Your task to perform on an android device: open a new tab in the chrome app Image 0: 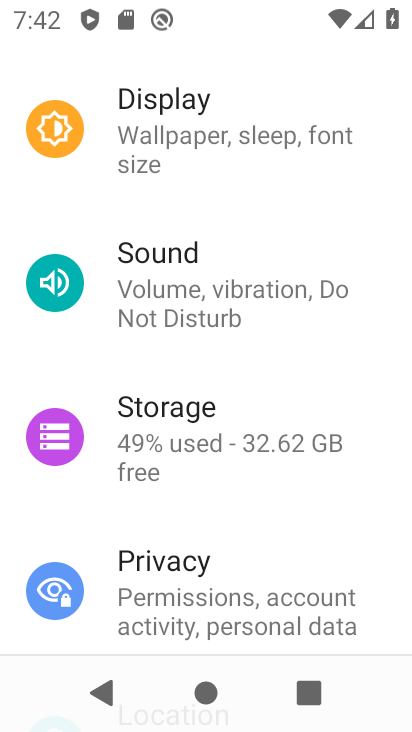
Step 0: press home button
Your task to perform on an android device: open a new tab in the chrome app Image 1: 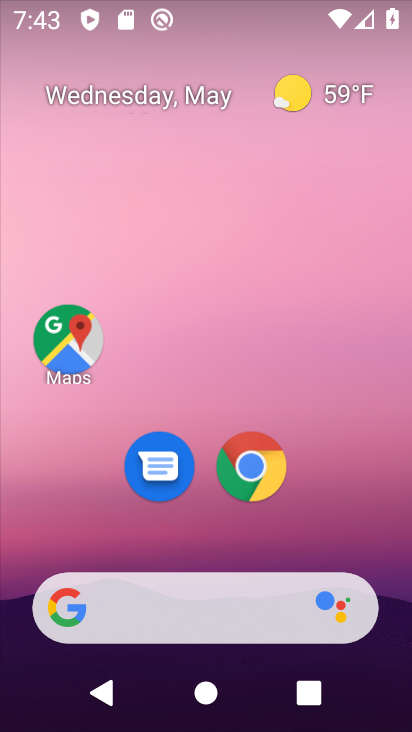
Step 1: drag from (350, 409) to (350, 254)
Your task to perform on an android device: open a new tab in the chrome app Image 2: 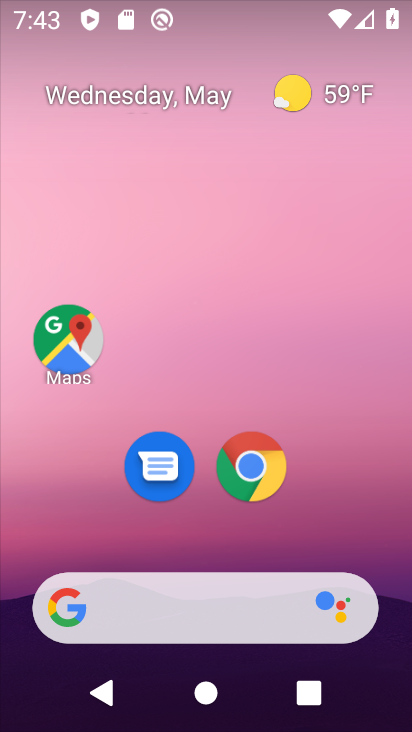
Step 2: drag from (318, 544) to (307, 183)
Your task to perform on an android device: open a new tab in the chrome app Image 3: 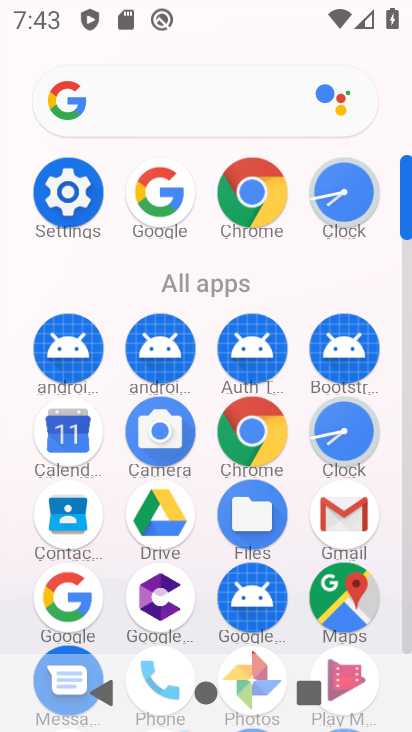
Step 3: click (247, 425)
Your task to perform on an android device: open a new tab in the chrome app Image 4: 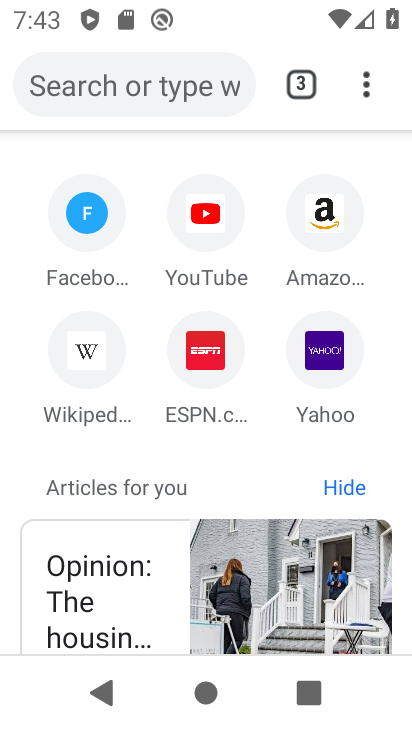
Step 4: click (344, 82)
Your task to perform on an android device: open a new tab in the chrome app Image 5: 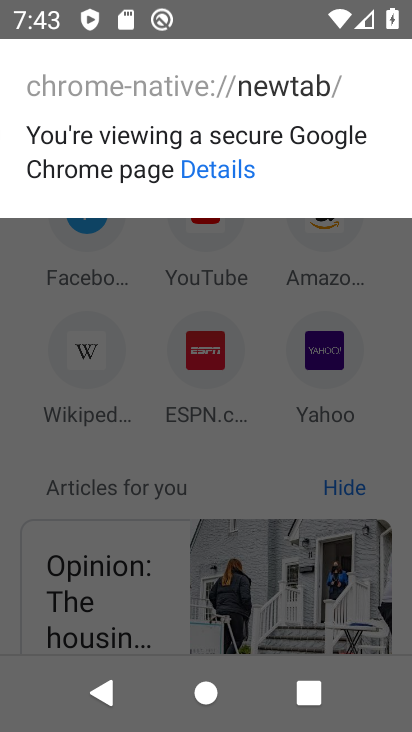
Step 5: press back button
Your task to perform on an android device: open a new tab in the chrome app Image 6: 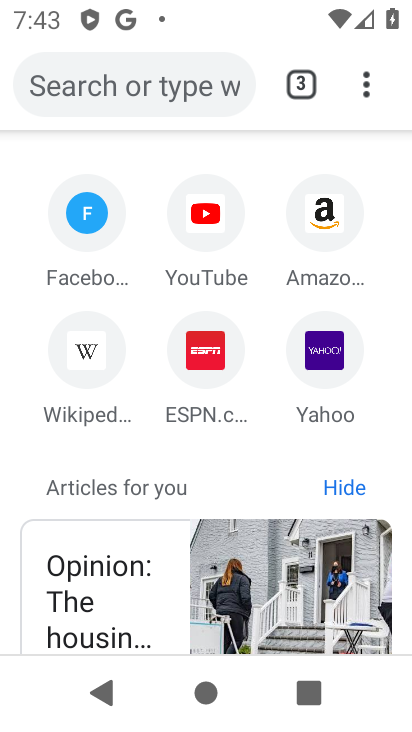
Step 6: click (353, 88)
Your task to perform on an android device: open a new tab in the chrome app Image 7: 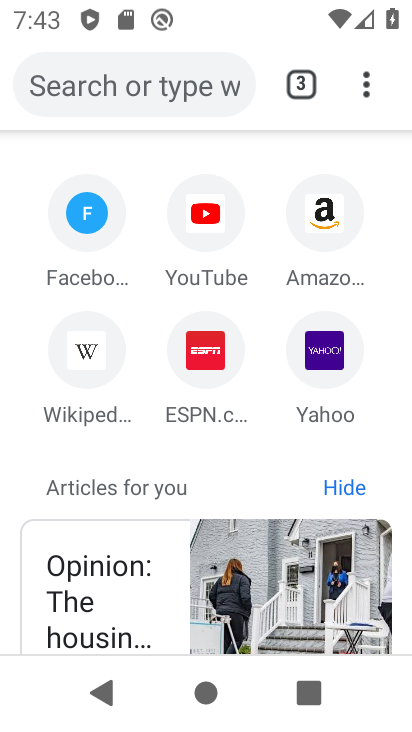
Step 7: click (346, 90)
Your task to perform on an android device: open a new tab in the chrome app Image 8: 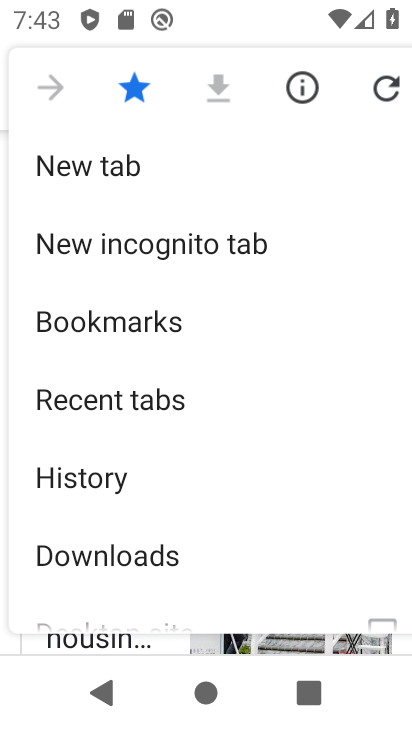
Step 8: click (116, 159)
Your task to perform on an android device: open a new tab in the chrome app Image 9: 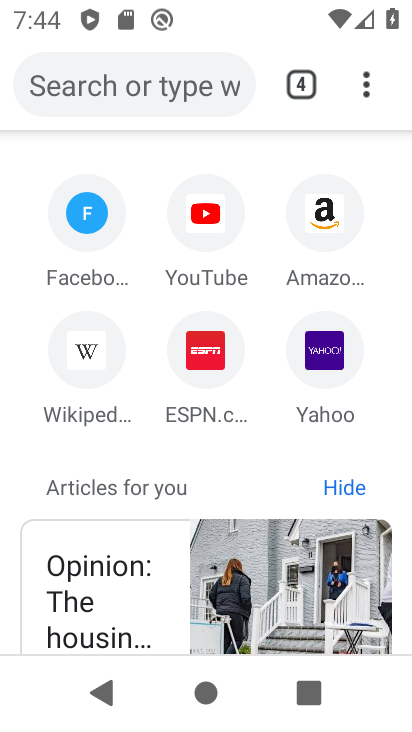
Step 9: task complete